Your task to perform on an android device: What is the capital of Spain? Image 0: 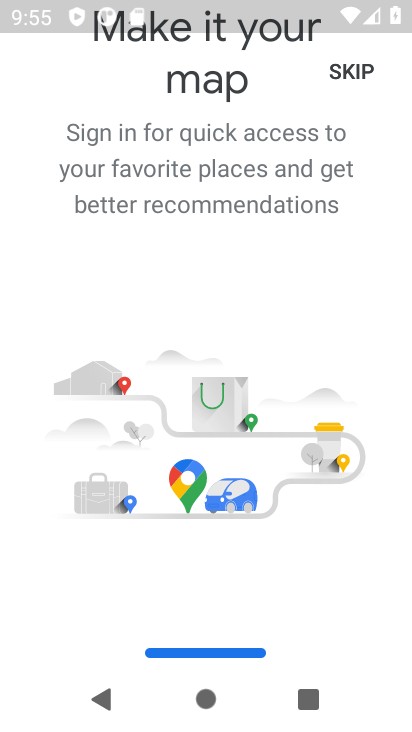
Step 0: press home button
Your task to perform on an android device: What is the capital of Spain? Image 1: 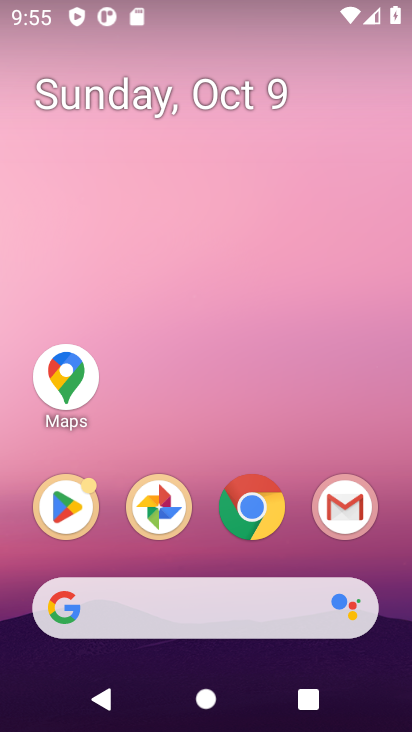
Step 1: drag from (211, 556) to (200, 130)
Your task to perform on an android device: What is the capital of Spain? Image 2: 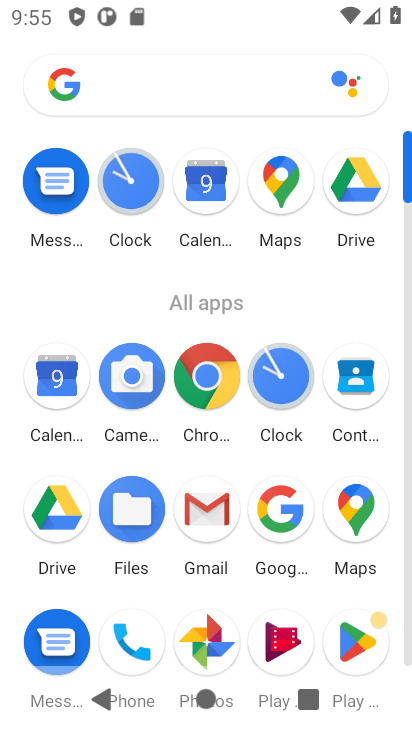
Step 2: click (200, 374)
Your task to perform on an android device: What is the capital of Spain? Image 3: 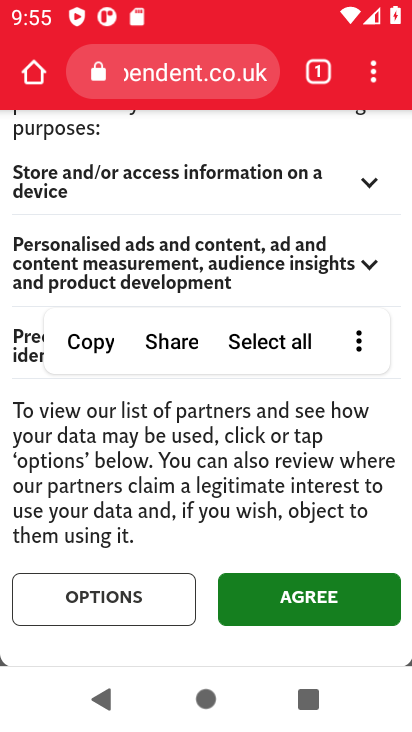
Step 3: press back button
Your task to perform on an android device: What is the capital of Spain? Image 4: 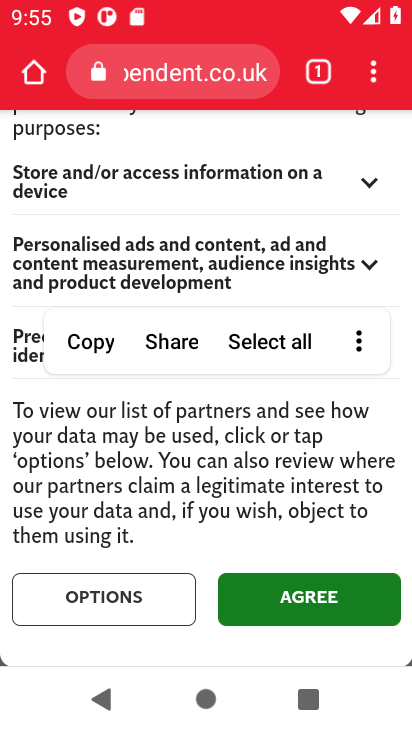
Step 4: click (197, 71)
Your task to perform on an android device: What is the capital of Spain? Image 5: 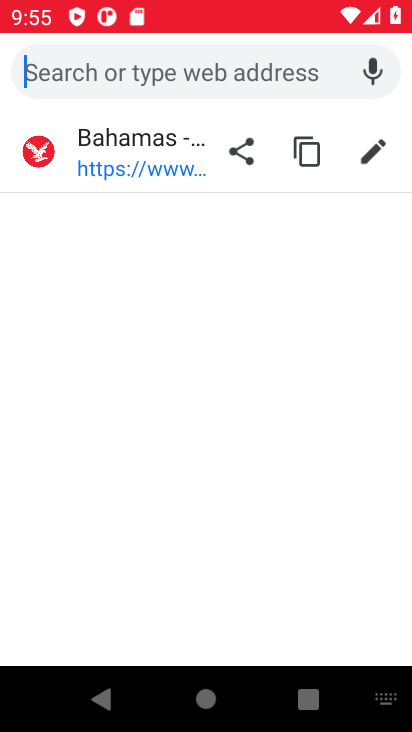
Step 5: type "What is the capital of Spain ?"
Your task to perform on an android device: What is the capital of Spain? Image 6: 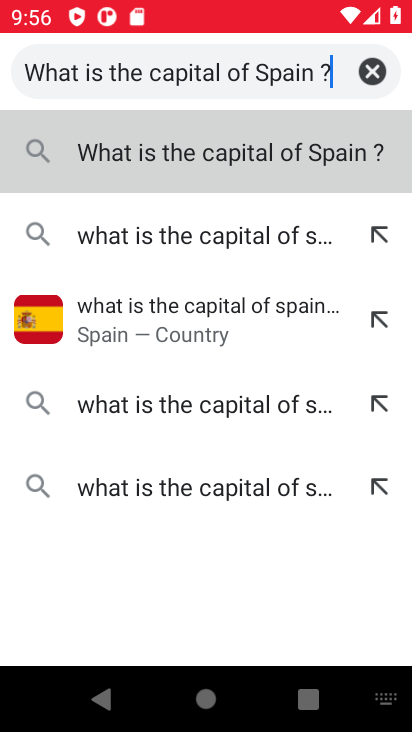
Step 6: press enter
Your task to perform on an android device: What is the capital of Spain? Image 7: 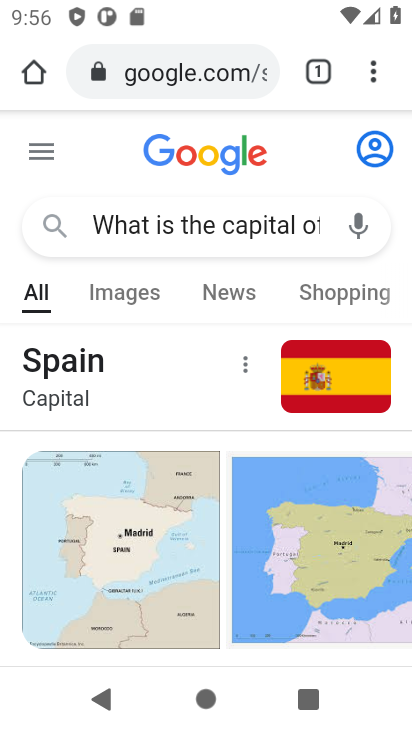
Step 7: drag from (213, 583) to (235, 404)
Your task to perform on an android device: What is the capital of Spain? Image 8: 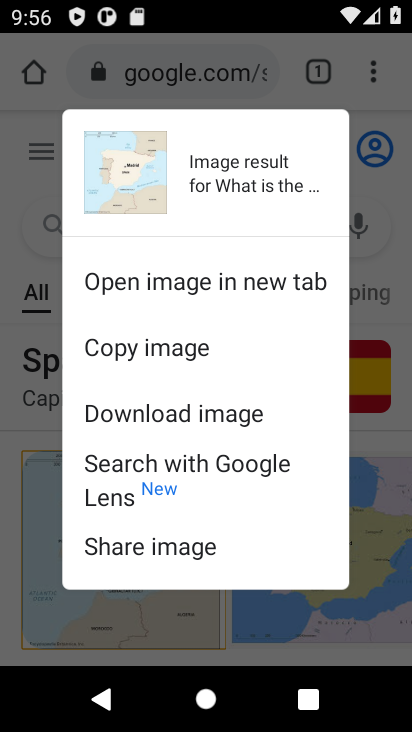
Step 8: click (388, 511)
Your task to perform on an android device: What is the capital of Spain? Image 9: 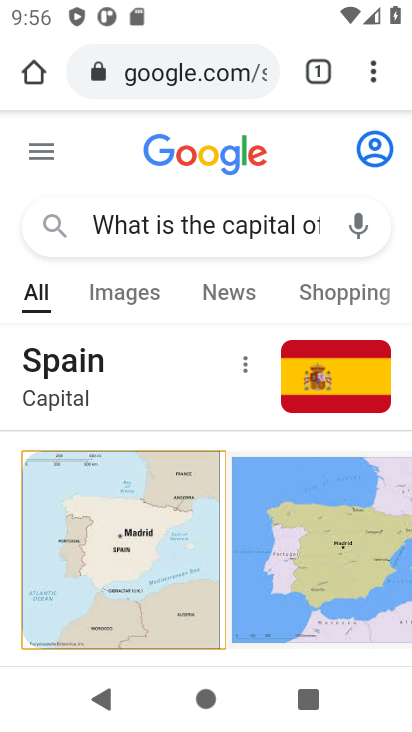
Step 9: task complete